Your task to perform on an android device: change your default location settings in chrome Image 0: 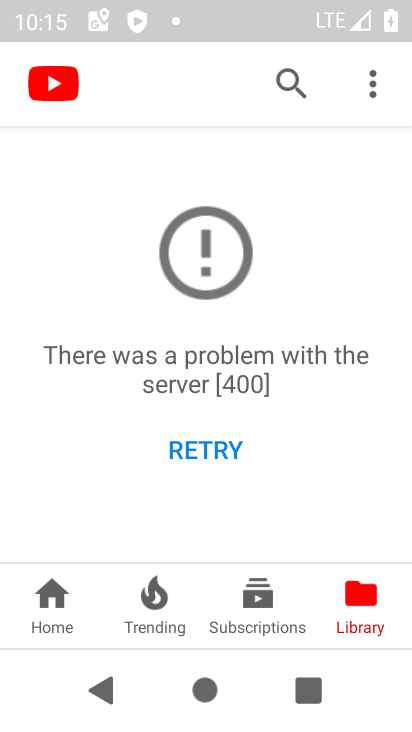
Step 0: press home button
Your task to perform on an android device: change your default location settings in chrome Image 1: 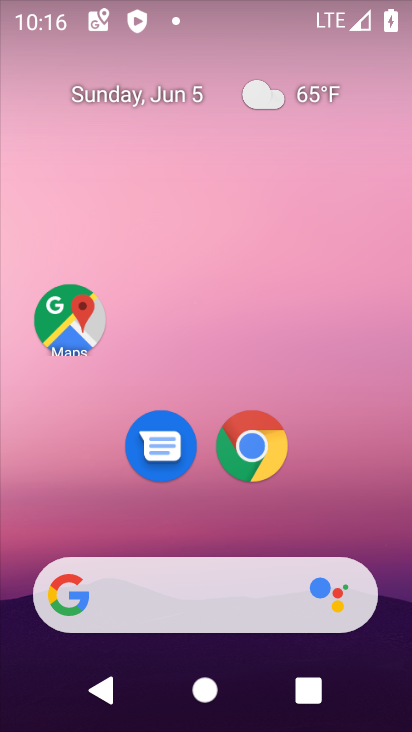
Step 1: drag from (258, 531) to (255, 137)
Your task to perform on an android device: change your default location settings in chrome Image 2: 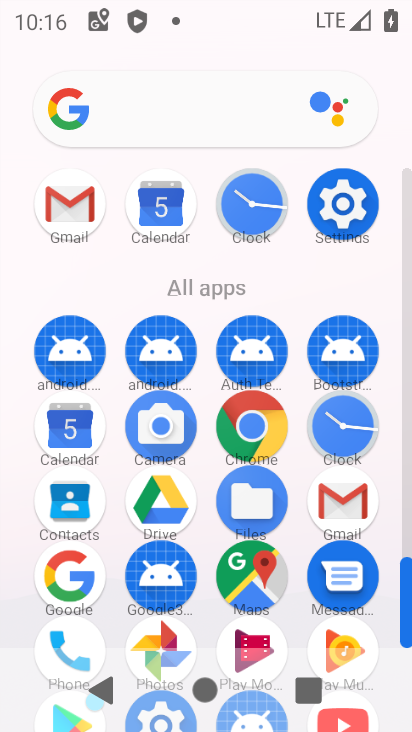
Step 2: click (252, 432)
Your task to perform on an android device: change your default location settings in chrome Image 3: 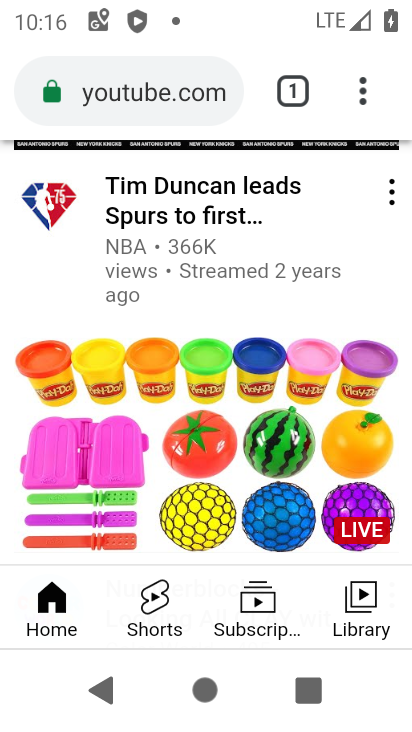
Step 3: click (359, 93)
Your task to perform on an android device: change your default location settings in chrome Image 4: 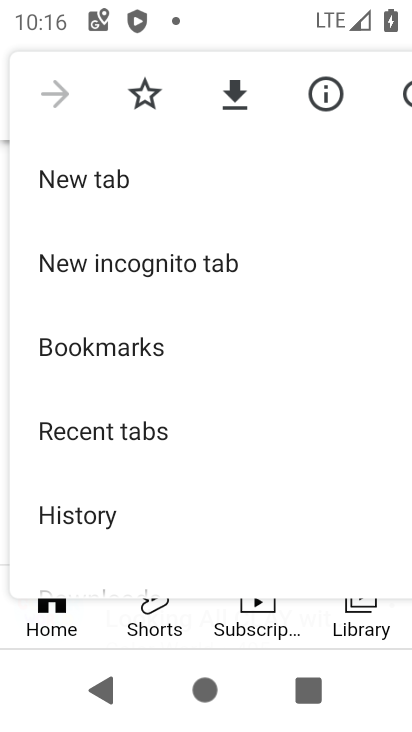
Step 4: drag from (202, 490) to (200, 206)
Your task to perform on an android device: change your default location settings in chrome Image 5: 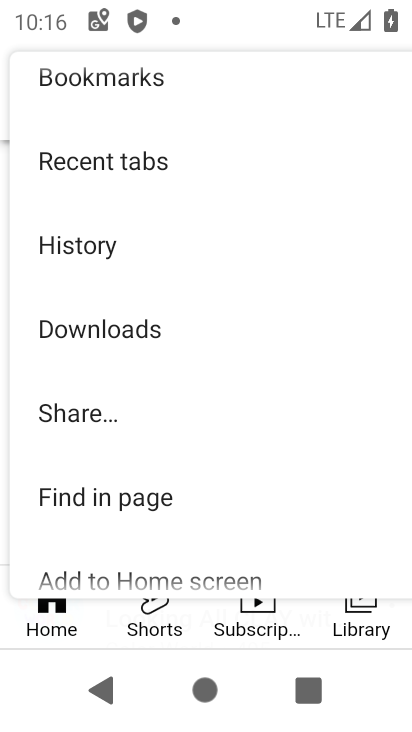
Step 5: drag from (194, 480) to (236, 179)
Your task to perform on an android device: change your default location settings in chrome Image 6: 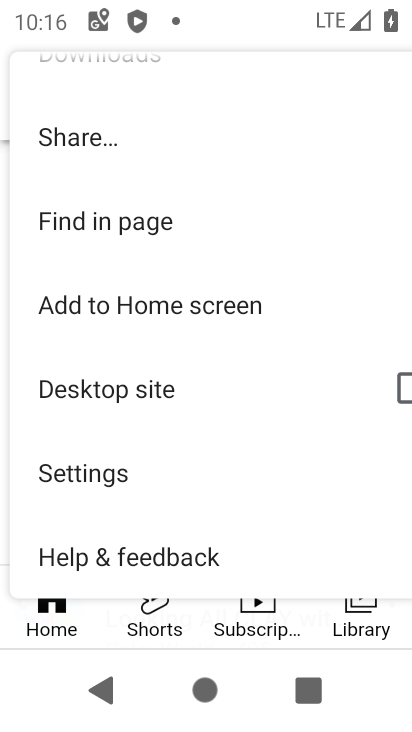
Step 6: click (122, 477)
Your task to perform on an android device: change your default location settings in chrome Image 7: 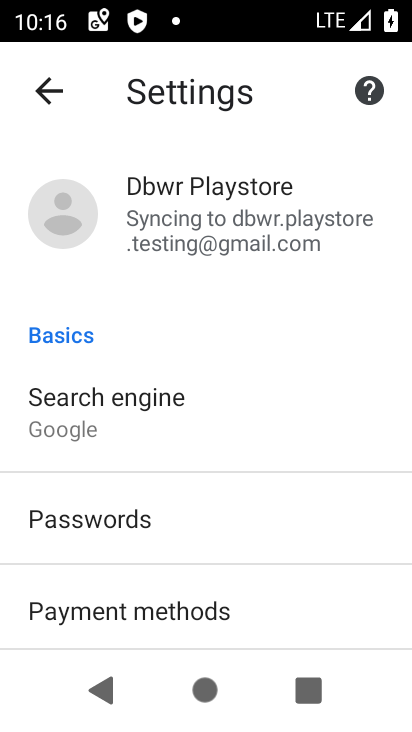
Step 7: drag from (193, 311) to (220, 154)
Your task to perform on an android device: change your default location settings in chrome Image 8: 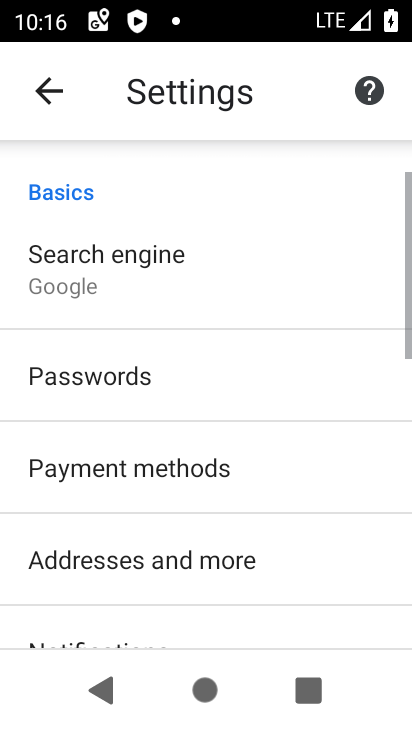
Step 8: drag from (229, 566) to (219, 245)
Your task to perform on an android device: change your default location settings in chrome Image 9: 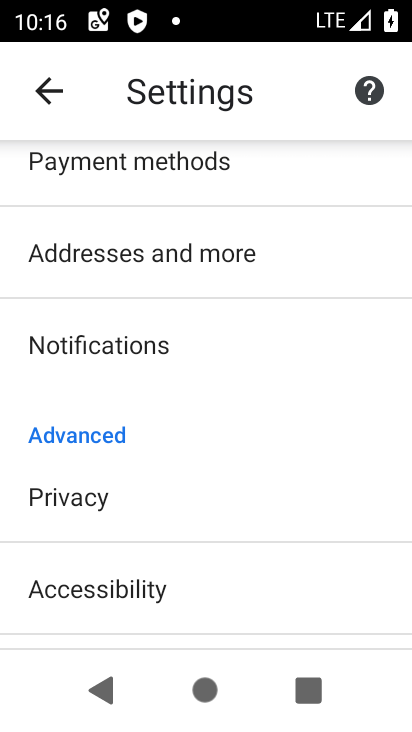
Step 9: drag from (150, 587) to (192, 282)
Your task to perform on an android device: change your default location settings in chrome Image 10: 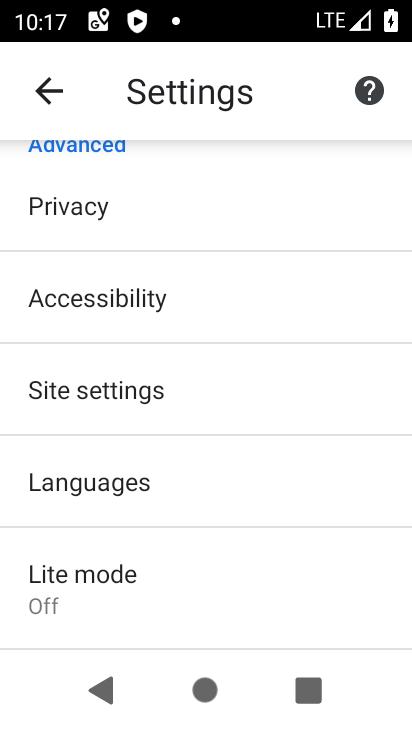
Step 10: click (110, 395)
Your task to perform on an android device: change your default location settings in chrome Image 11: 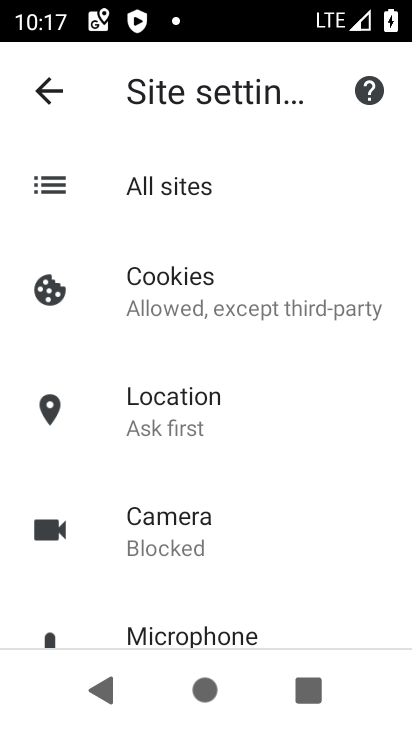
Step 11: click (192, 410)
Your task to perform on an android device: change your default location settings in chrome Image 12: 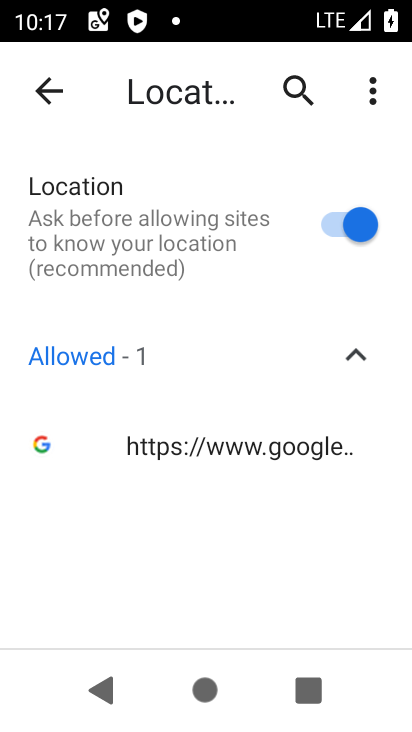
Step 12: click (328, 221)
Your task to perform on an android device: change your default location settings in chrome Image 13: 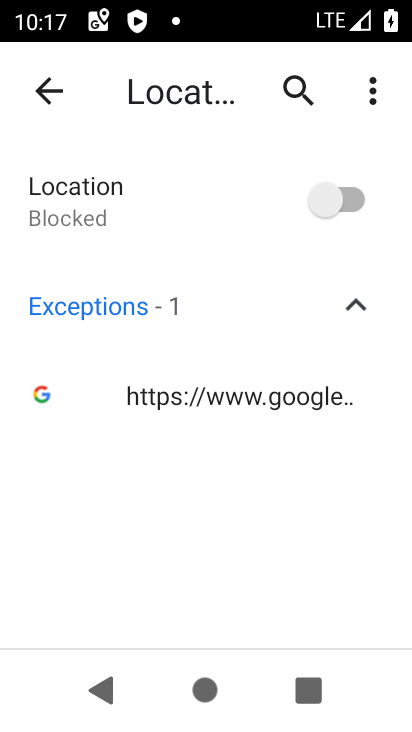
Step 13: task complete